Your task to perform on an android device: turn off sleep mode Image 0: 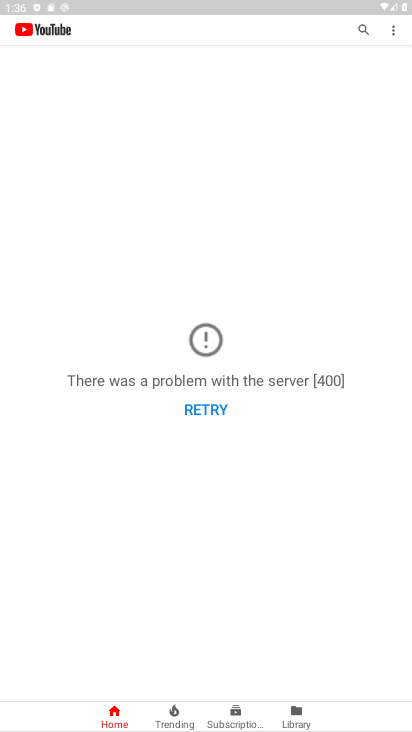
Step 0: press home button
Your task to perform on an android device: turn off sleep mode Image 1: 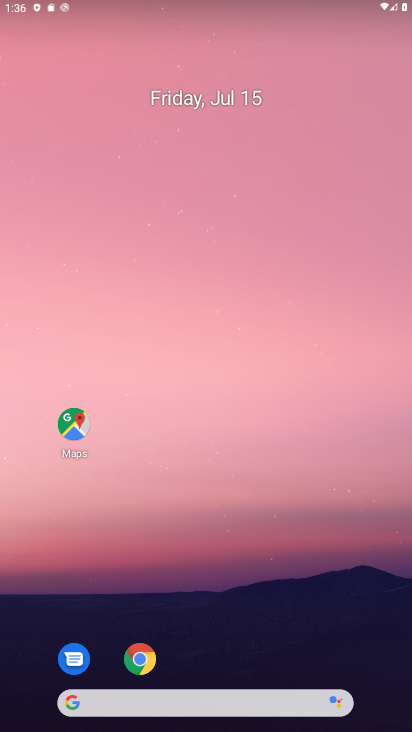
Step 1: drag from (165, 629) to (192, 355)
Your task to perform on an android device: turn off sleep mode Image 2: 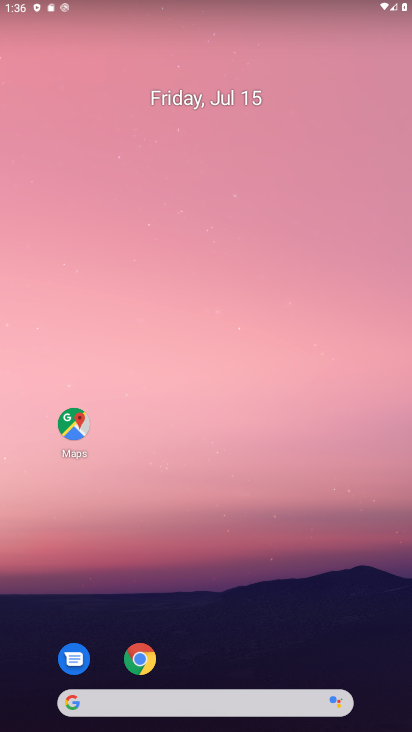
Step 2: drag from (231, 671) to (231, 273)
Your task to perform on an android device: turn off sleep mode Image 3: 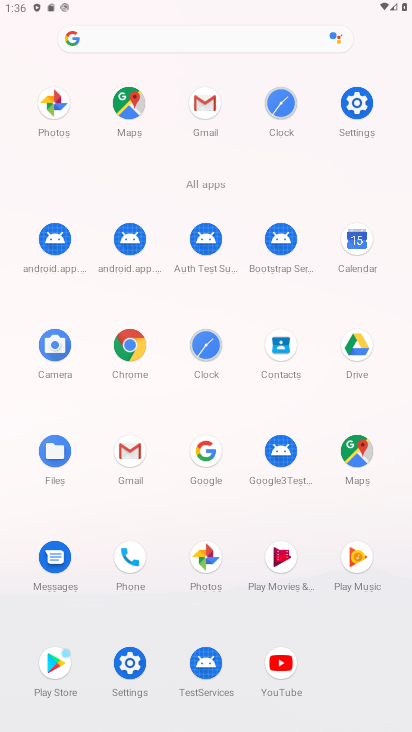
Step 3: click (350, 100)
Your task to perform on an android device: turn off sleep mode Image 4: 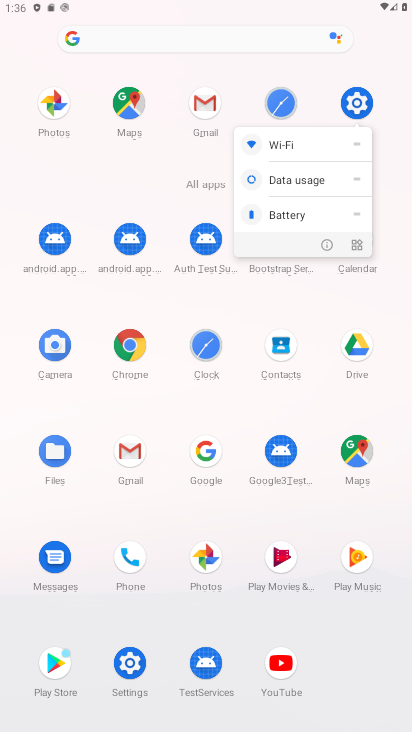
Step 4: click (357, 100)
Your task to perform on an android device: turn off sleep mode Image 5: 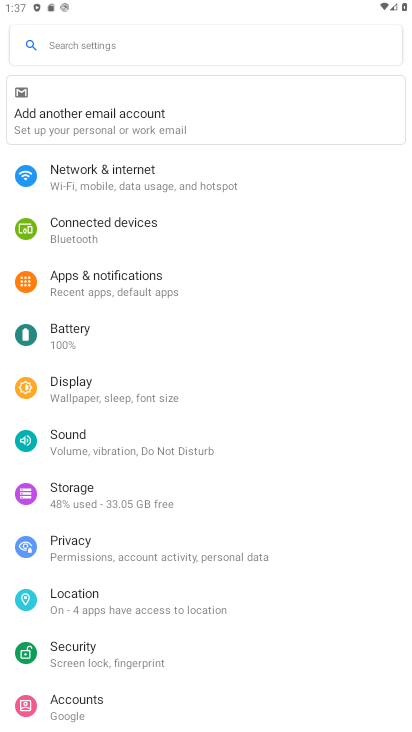
Step 5: task complete